Your task to perform on an android device: turn off sleep mode Image 0: 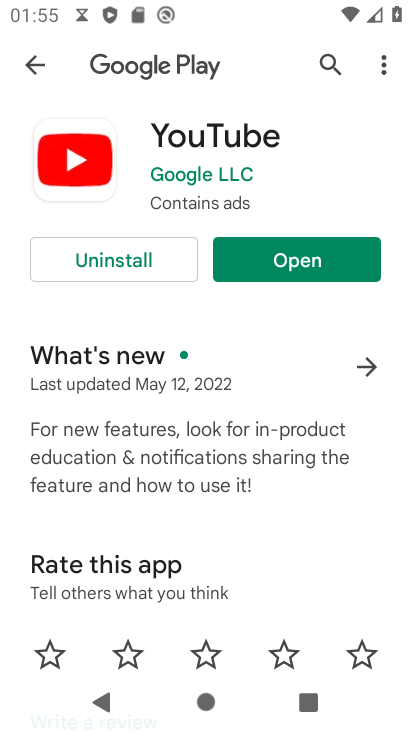
Step 0: press home button
Your task to perform on an android device: turn off sleep mode Image 1: 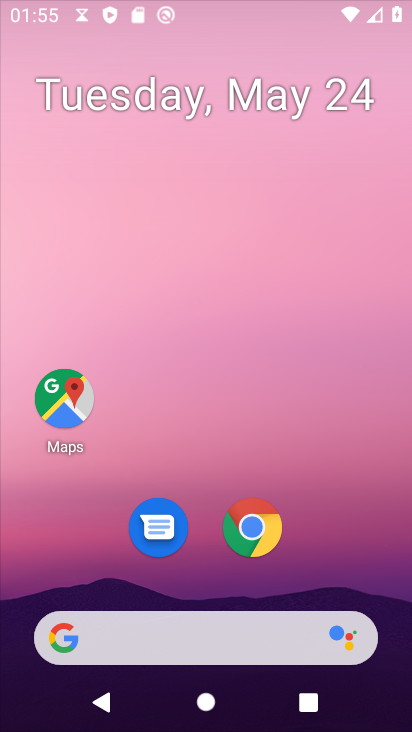
Step 1: drag from (248, 450) to (309, 149)
Your task to perform on an android device: turn off sleep mode Image 2: 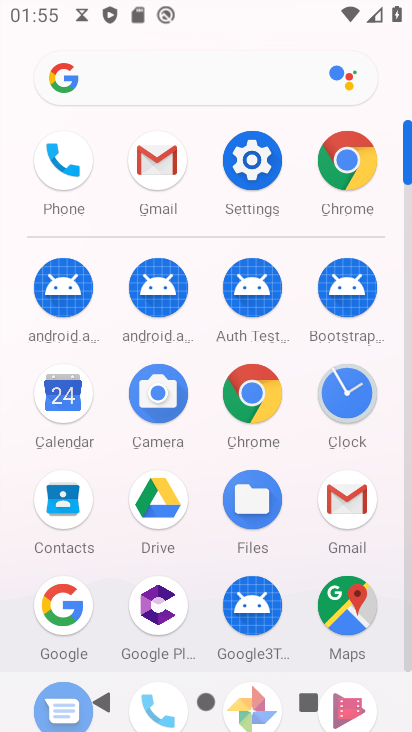
Step 2: click (251, 171)
Your task to perform on an android device: turn off sleep mode Image 3: 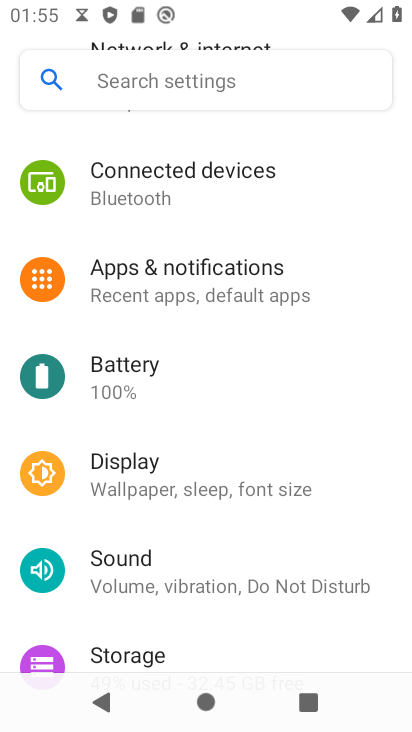
Step 3: click (134, 465)
Your task to perform on an android device: turn off sleep mode Image 4: 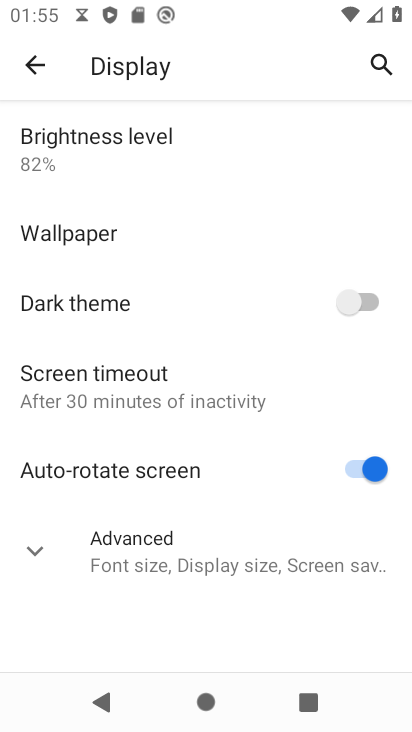
Step 4: task complete